Your task to perform on an android device: Open Maps and search for coffee Image 0: 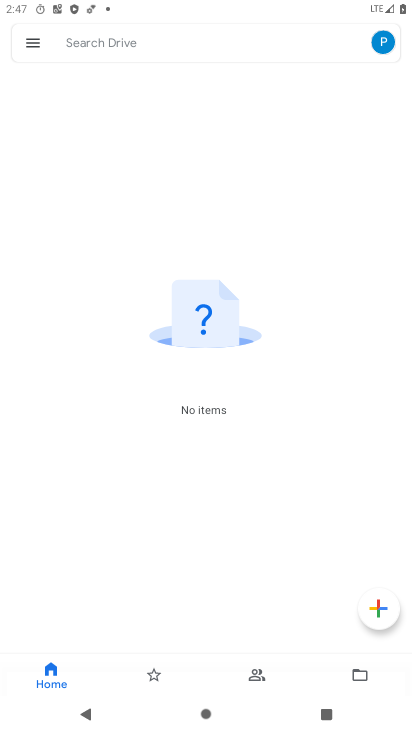
Step 0: press home button
Your task to perform on an android device: Open Maps and search for coffee Image 1: 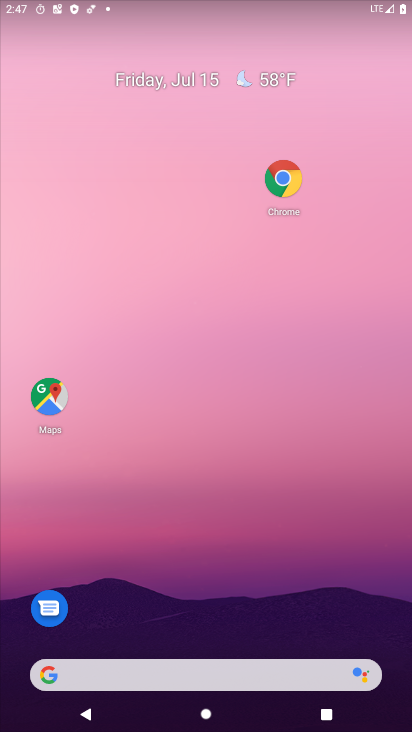
Step 1: drag from (300, 598) to (330, 42)
Your task to perform on an android device: Open Maps and search for coffee Image 2: 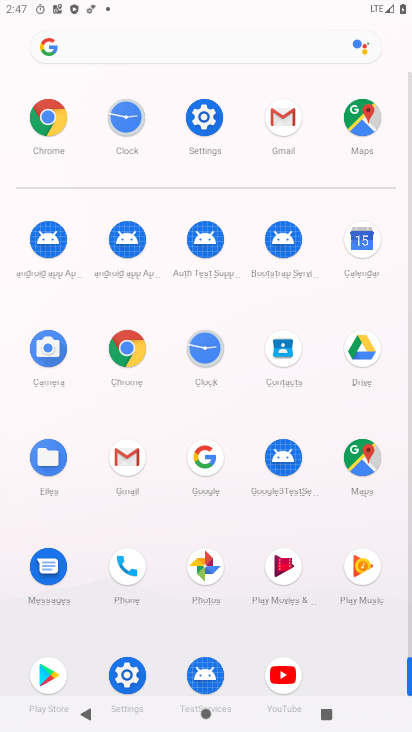
Step 2: click (360, 453)
Your task to perform on an android device: Open Maps and search for coffee Image 3: 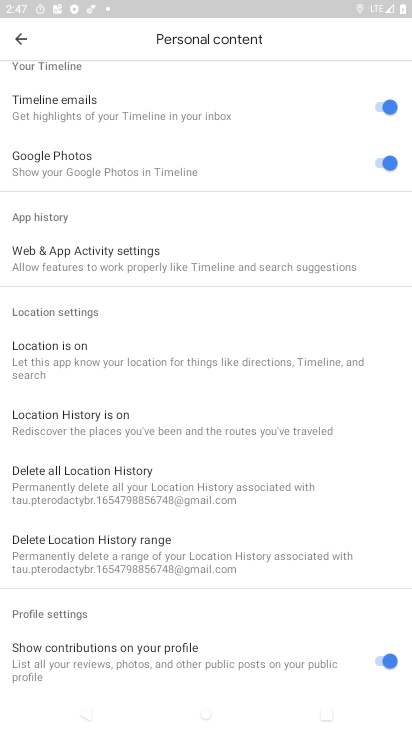
Step 3: click (13, 42)
Your task to perform on an android device: Open Maps and search for coffee Image 4: 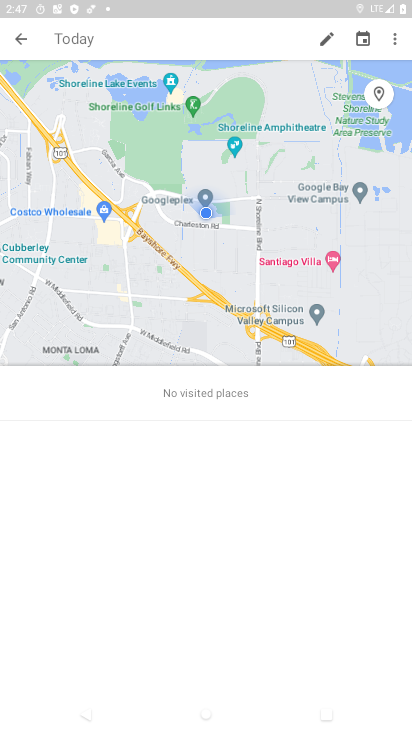
Step 4: click (12, 42)
Your task to perform on an android device: Open Maps and search for coffee Image 5: 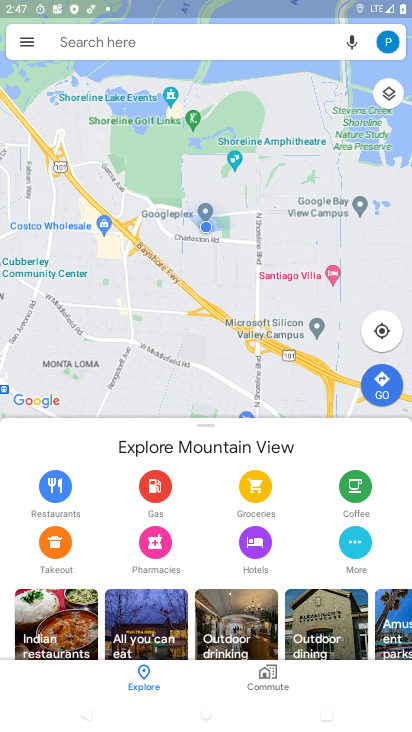
Step 5: click (160, 46)
Your task to perform on an android device: Open Maps and search for coffee Image 6: 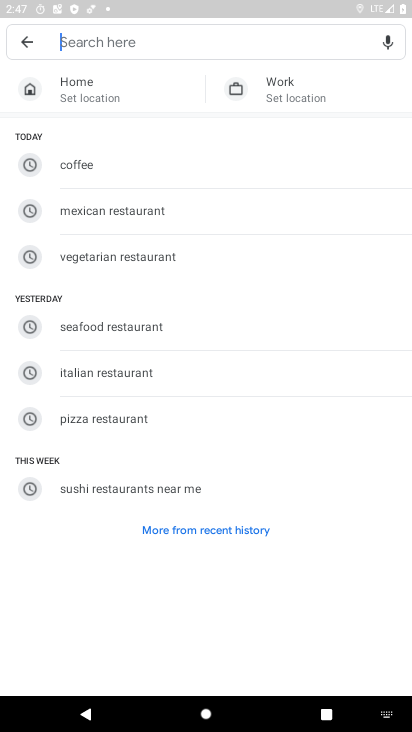
Step 6: type "coffee"
Your task to perform on an android device: Open Maps and search for coffee Image 7: 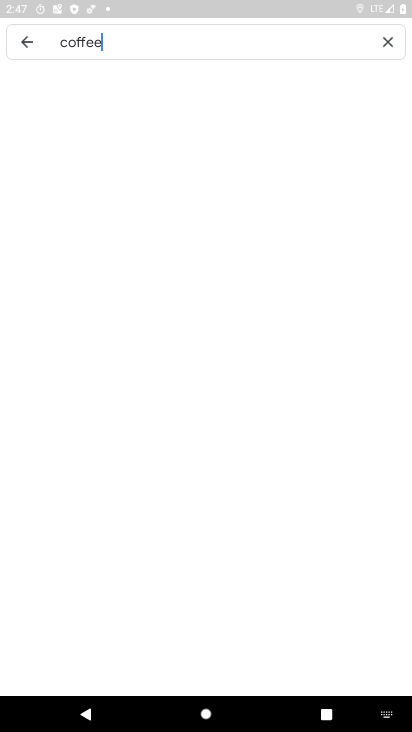
Step 7: type ""
Your task to perform on an android device: Open Maps and search for coffee Image 8: 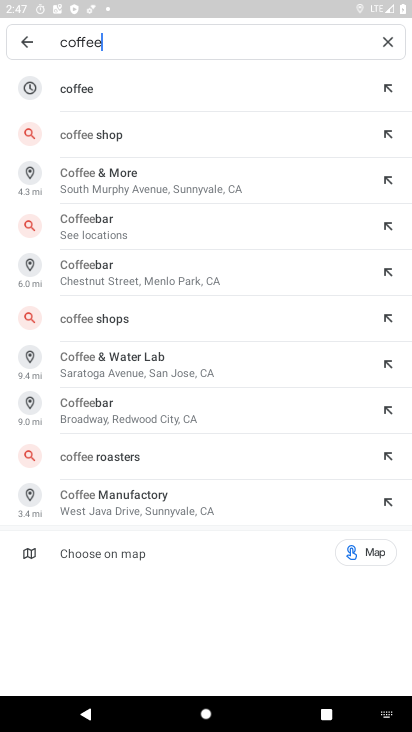
Step 8: click (143, 79)
Your task to perform on an android device: Open Maps and search for coffee Image 9: 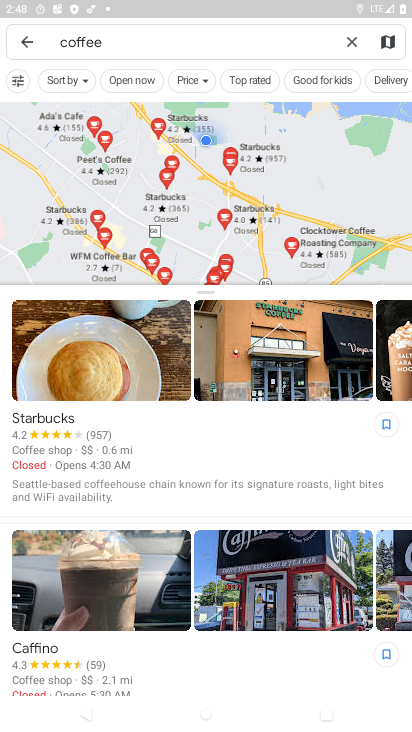
Step 9: task complete